Your task to perform on an android device: Go to Reddit.com Image 0: 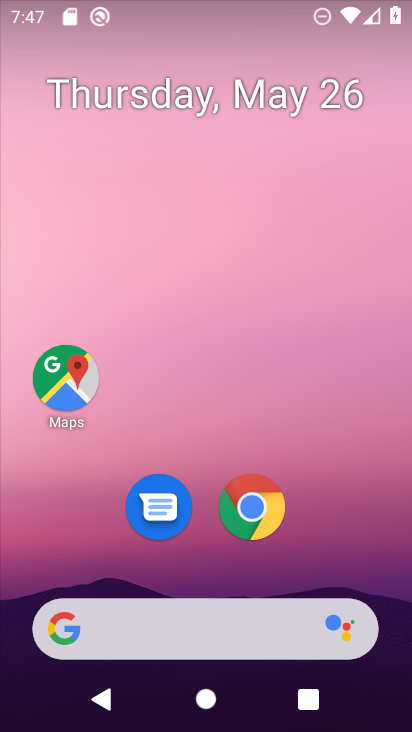
Step 0: click (240, 518)
Your task to perform on an android device: Go to Reddit.com Image 1: 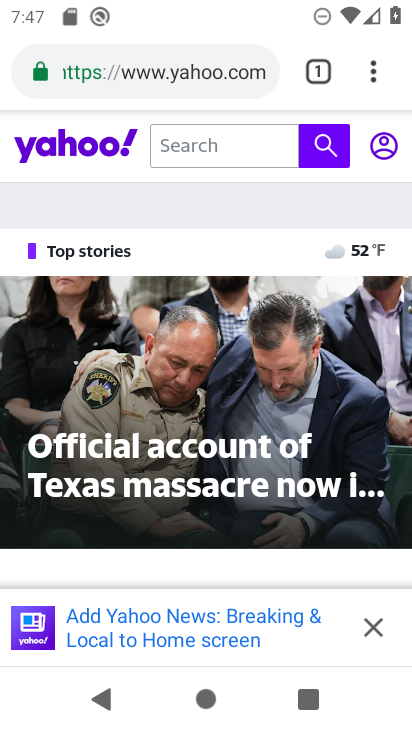
Step 1: click (128, 61)
Your task to perform on an android device: Go to Reddit.com Image 2: 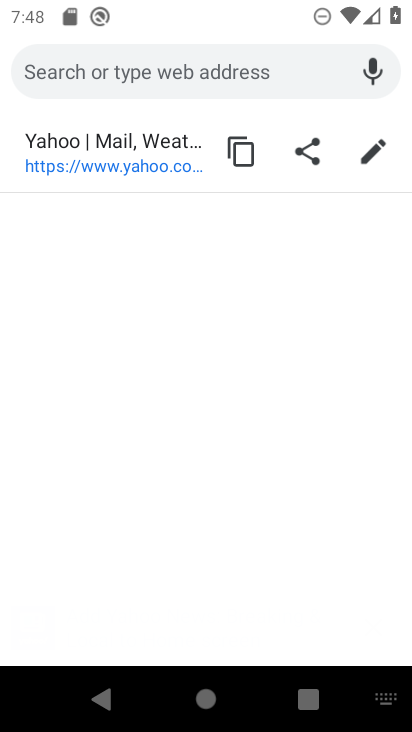
Step 2: type "www.reddit.com"
Your task to perform on an android device: Go to Reddit.com Image 3: 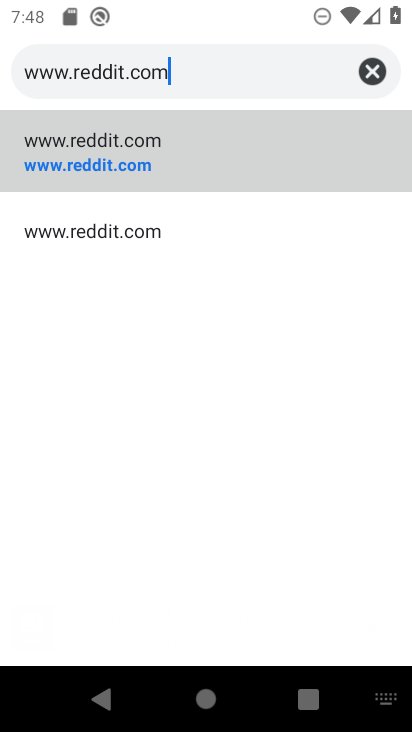
Step 3: click (57, 157)
Your task to perform on an android device: Go to Reddit.com Image 4: 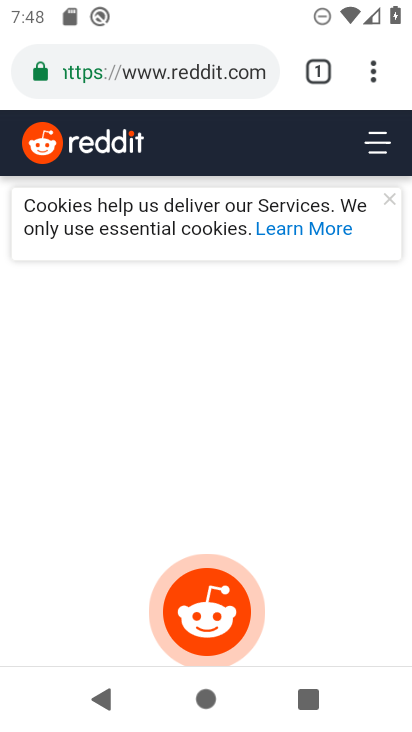
Step 4: task complete